Your task to perform on an android device: Open the calendar and show me this week's events Image 0: 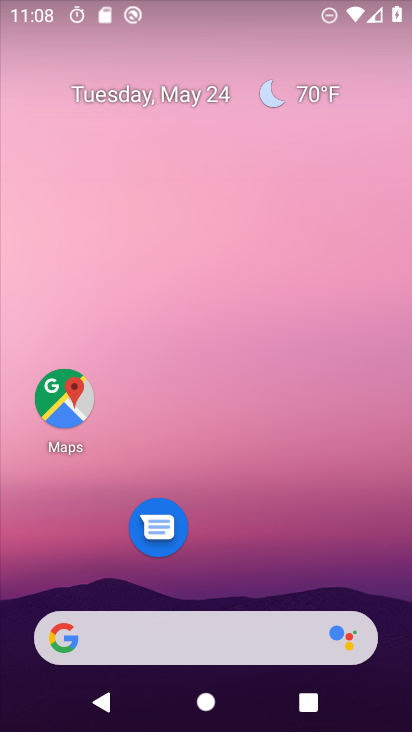
Step 0: drag from (256, 550) to (248, 149)
Your task to perform on an android device: Open the calendar and show me this week's events Image 1: 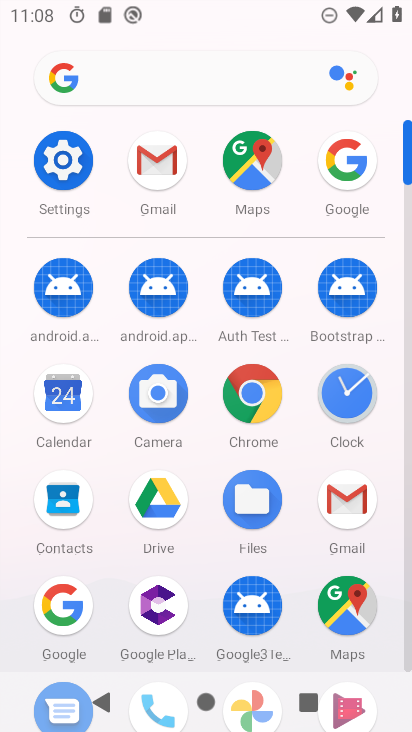
Step 1: click (65, 391)
Your task to perform on an android device: Open the calendar and show me this week's events Image 2: 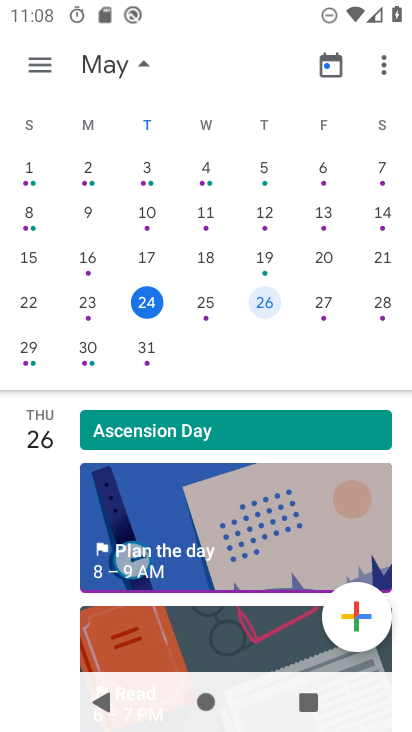
Step 2: click (324, 299)
Your task to perform on an android device: Open the calendar and show me this week's events Image 3: 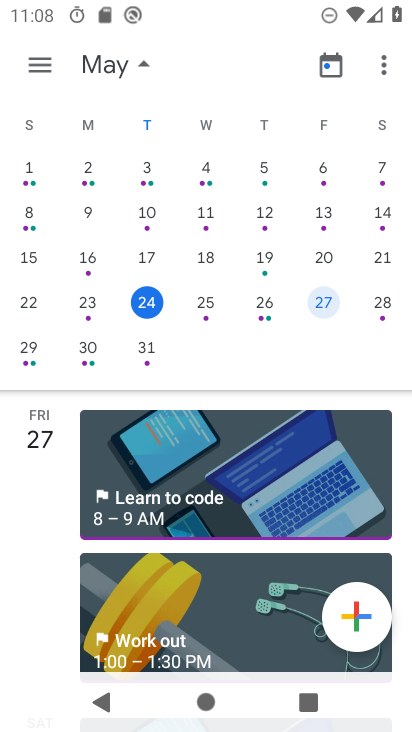
Step 3: task complete